Your task to perform on an android device: turn on data saver in the chrome app Image 0: 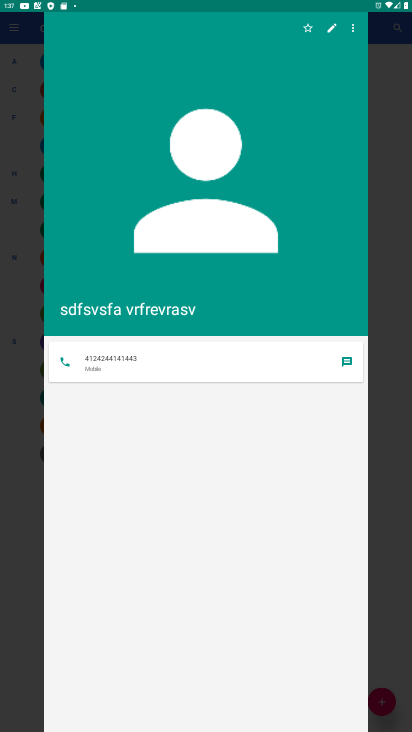
Step 0: press home button
Your task to perform on an android device: turn on data saver in the chrome app Image 1: 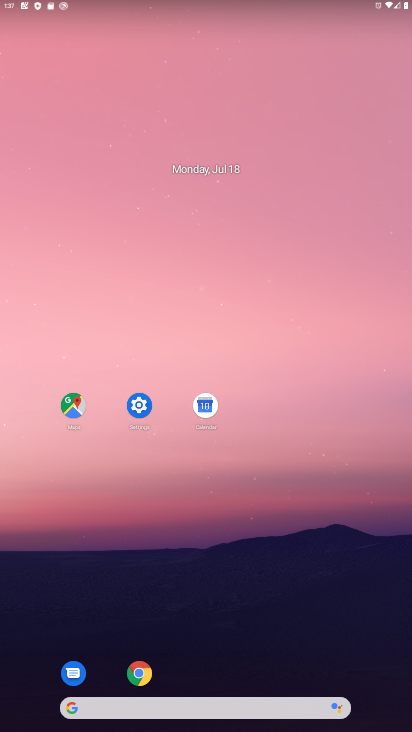
Step 1: click (134, 667)
Your task to perform on an android device: turn on data saver in the chrome app Image 2: 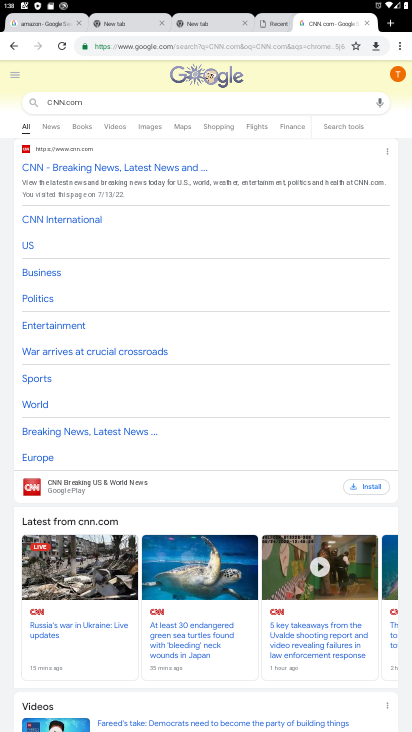
Step 2: click (400, 44)
Your task to perform on an android device: turn on data saver in the chrome app Image 3: 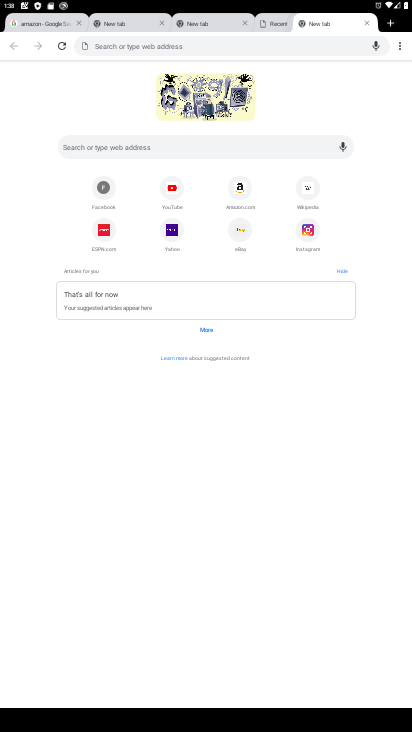
Step 3: click (400, 44)
Your task to perform on an android device: turn on data saver in the chrome app Image 4: 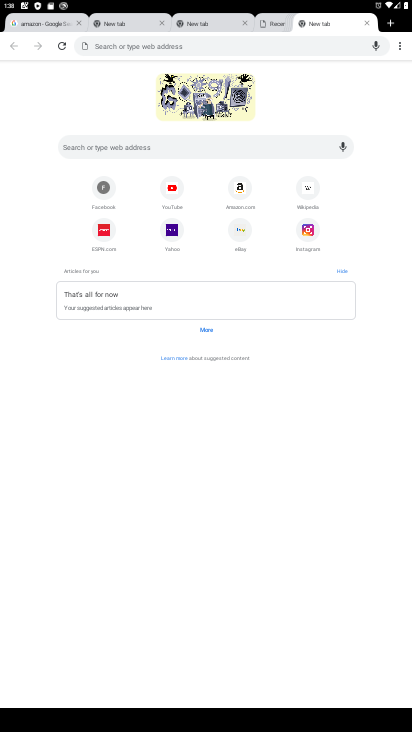
Step 4: click (400, 44)
Your task to perform on an android device: turn on data saver in the chrome app Image 5: 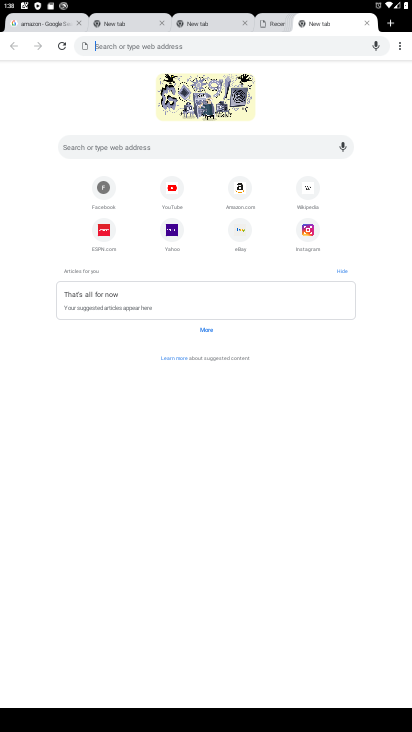
Step 5: click (400, 45)
Your task to perform on an android device: turn on data saver in the chrome app Image 6: 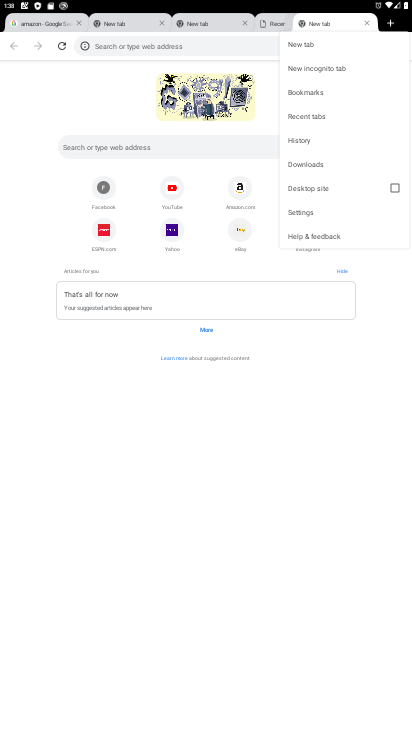
Step 6: click (290, 213)
Your task to perform on an android device: turn on data saver in the chrome app Image 7: 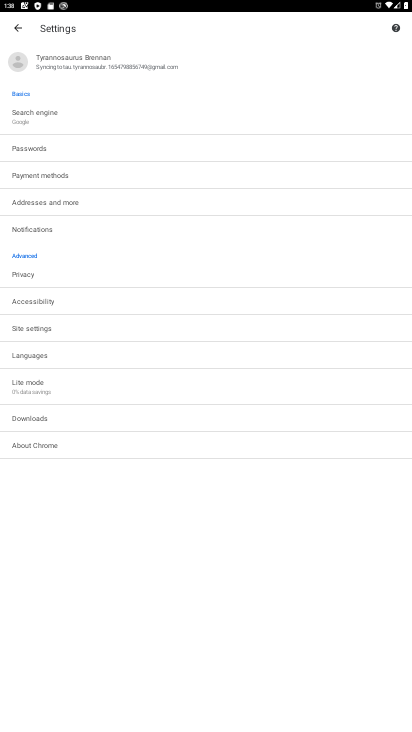
Step 7: click (47, 382)
Your task to perform on an android device: turn on data saver in the chrome app Image 8: 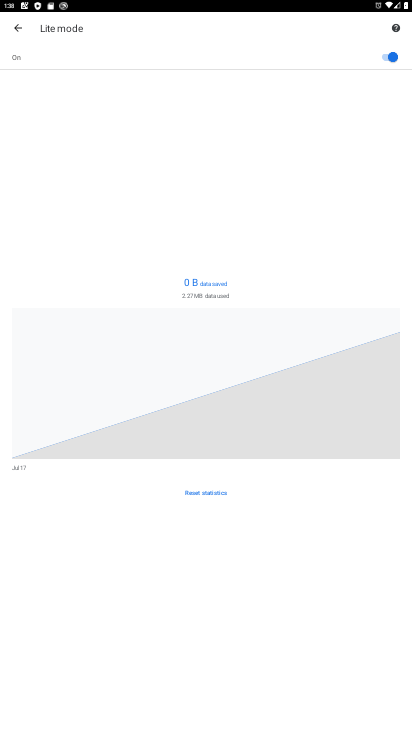
Step 8: click (389, 56)
Your task to perform on an android device: turn on data saver in the chrome app Image 9: 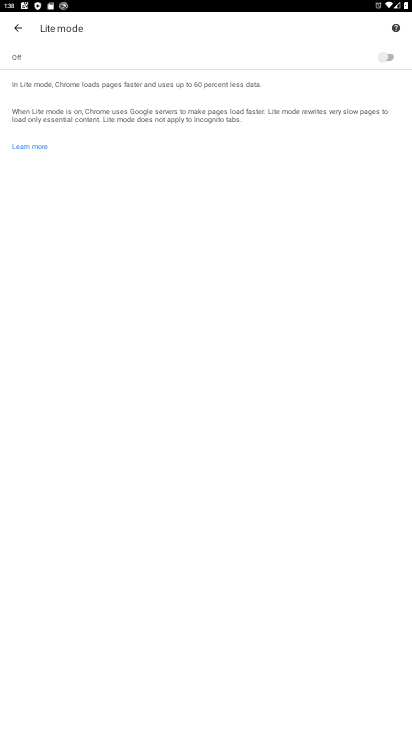
Step 9: click (393, 57)
Your task to perform on an android device: turn on data saver in the chrome app Image 10: 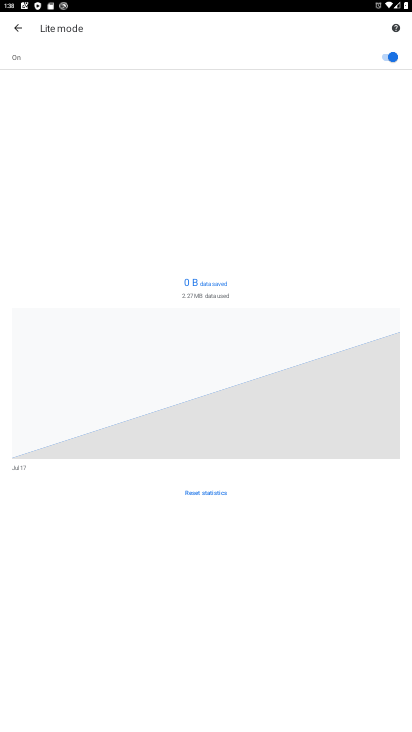
Step 10: task complete